Your task to perform on an android device: Open Google Image 0: 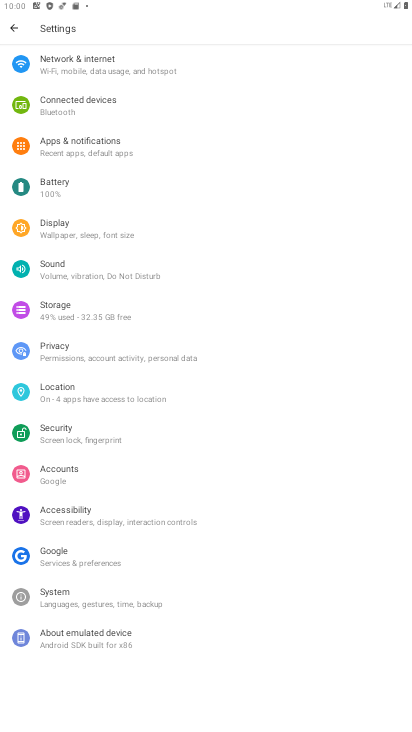
Step 0: press home button
Your task to perform on an android device: Open Google Image 1: 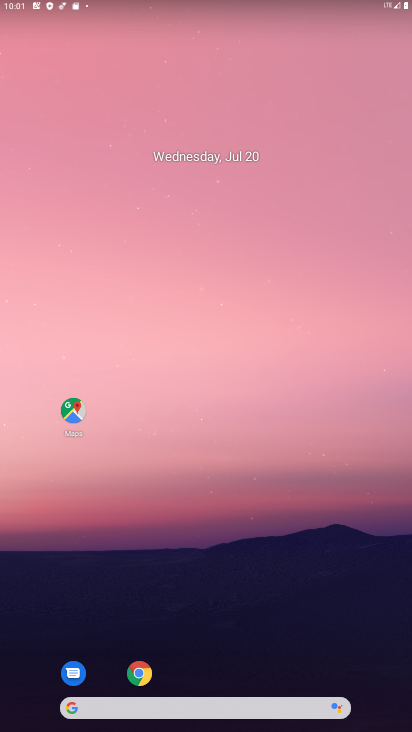
Step 1: drag from (159, 704) to (194, 199)
Your task to perform on an android device: Open Google Image 2: 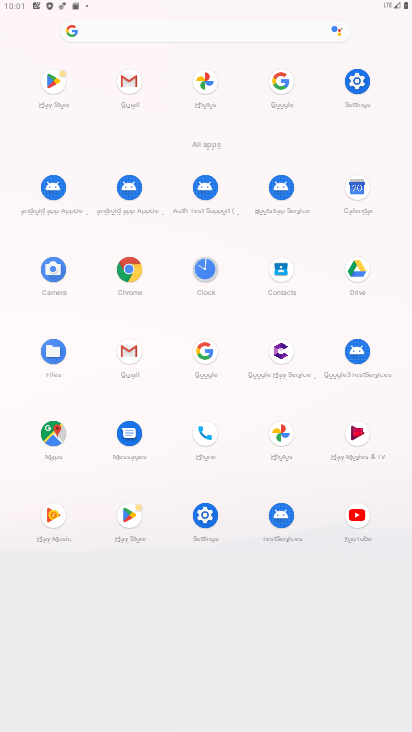
Step 2: click (204, 351)
Your task to perform on an android device: Open Google Image 3: 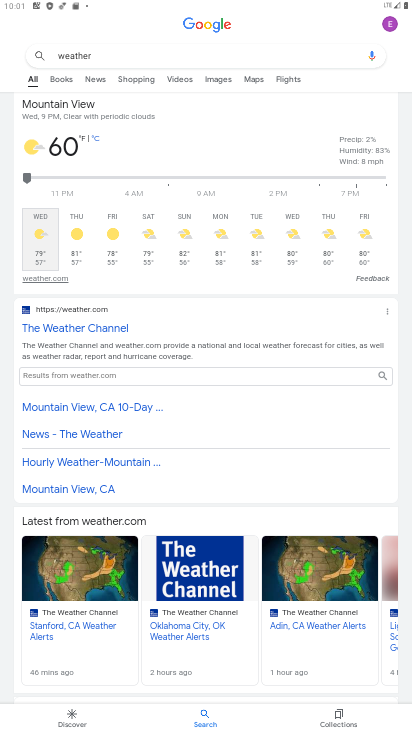
Step 3: task complete